Your task to perform on an android device: Search for sushi restaurants on Maps Image 0: 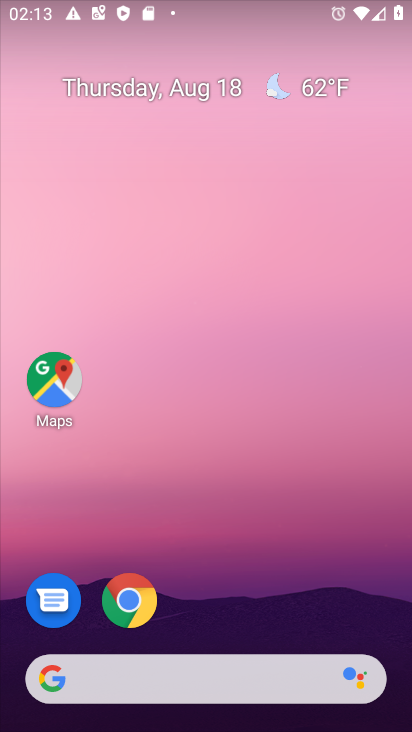
Step 0: press home button
Your task to perform on an android device: Search for sushi restaurants on Maps Image 1: 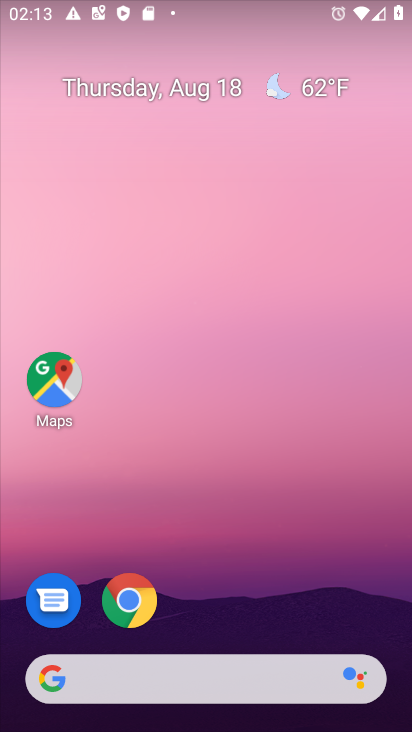
Step 1: click (44, 383)
Your task to perform on an android device: Search for sushi restaurants on Maps Image 2: 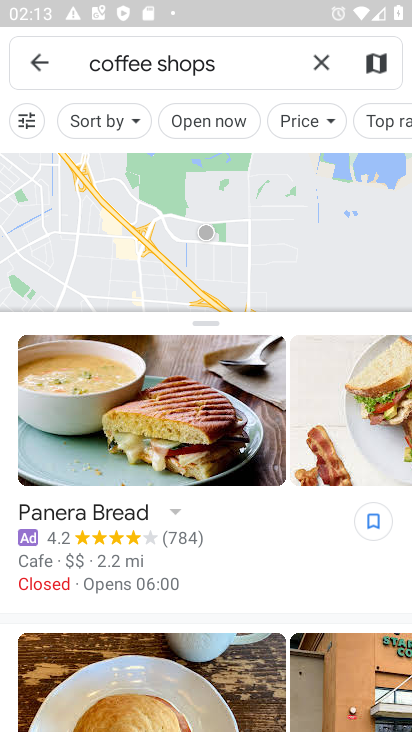
Step 2: click (32, 63)
Your task to perform on an android device: Search for sushi restaurants on Maps Image 3: 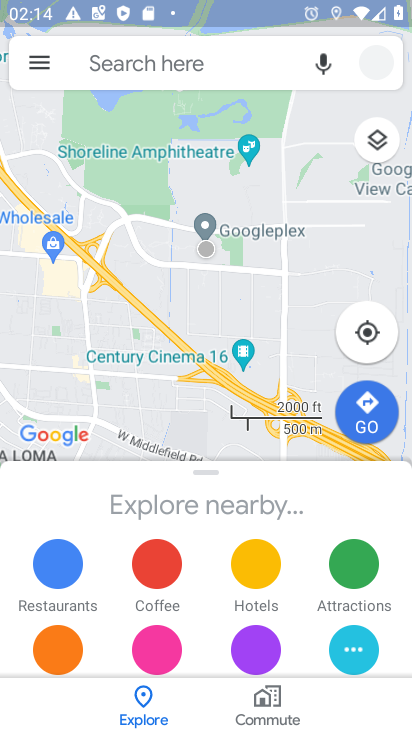
Step 3: click (202, 62)
Your task to perform on an android device: Search for sushi restaurants on Maps Image 4: 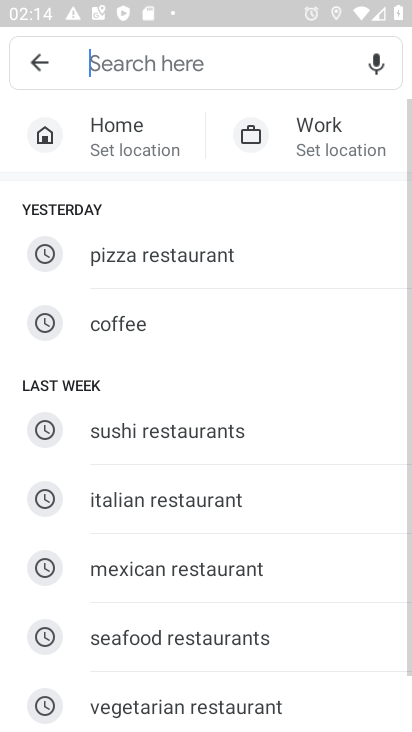
Step 4: click (143, 62)
Your task to perform on an android device: Search for sushi restaurants on Maps Image 5: 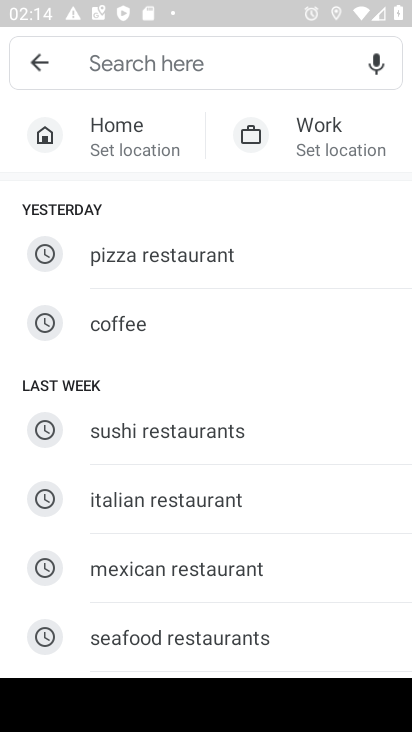
Step 5: click (186, 430)
Your task to perform on an android device: Search for sushi restaurants on Maps Image 6: 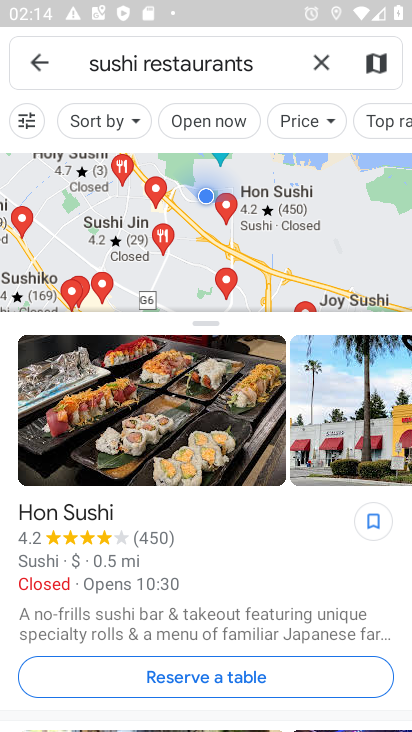
Step 6: task complete